Your task to perform on an android device: Open wifi settings Image 0: 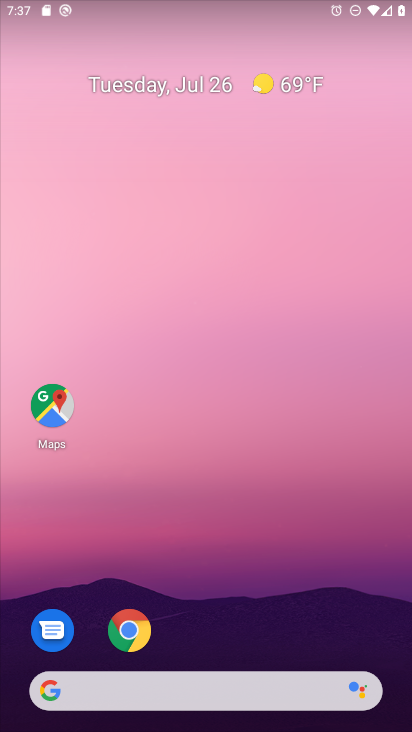
Step 0: drag from (237, 627) to (258, 207)
Your task to perform on an android device: Open wifi settings Image 1: 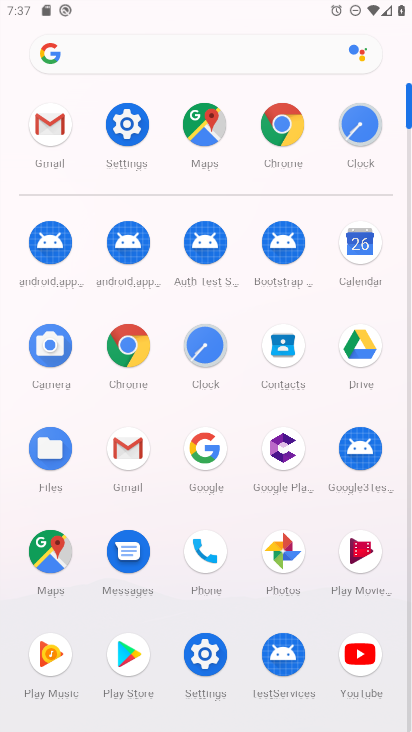
Step 1: click (117, 151)
Your task to perform on an android device: Open wifi settings Image 2: 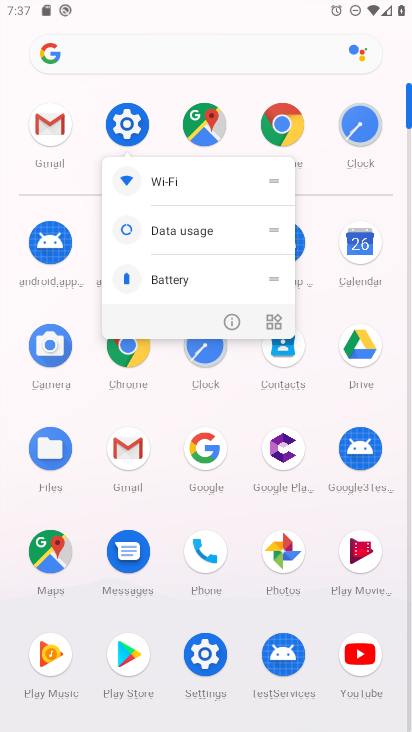
Step 2: click (128, 130)
Your task to perform on an android device: Open wifi settings Image 3: 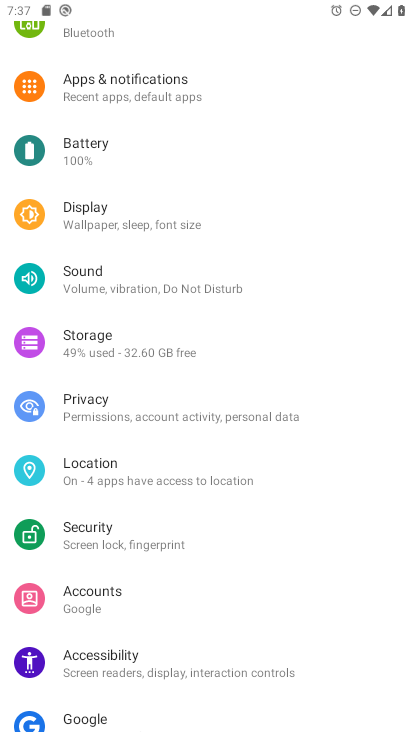
Step 3: drag from (129, 100) to (193, 585)
Your task to perform on an android device: Open wifi settings Image 4: 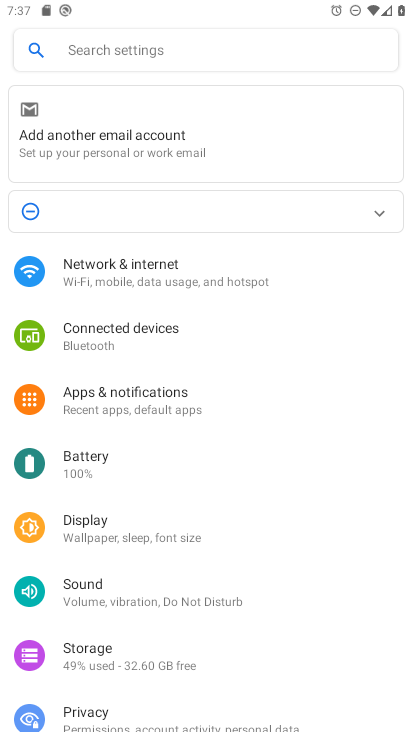
Step 4: click (104, 261)
Your task to perform on an android device: Open wifi settings Image 5: 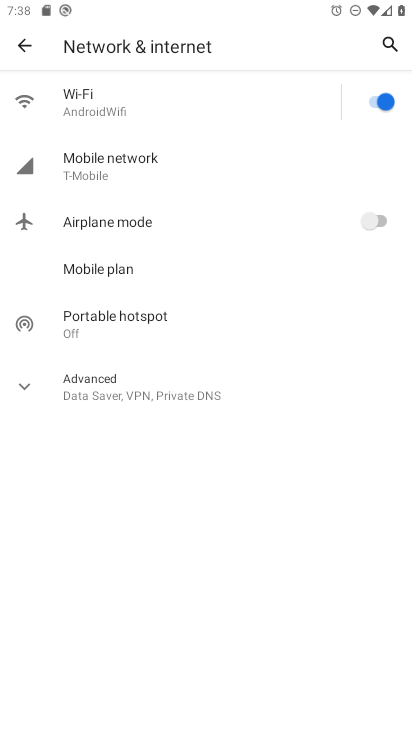
Step 5: click (192, 105)
Your task to perform on an android device: Open wifi settings Image 6: 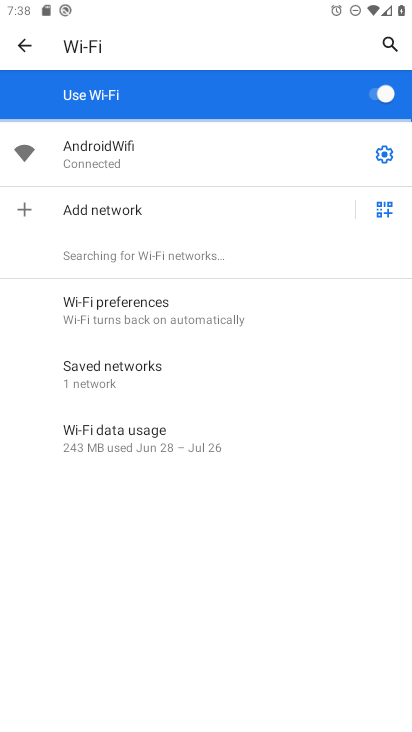
Step 6: task complete